Your task to perform on an android device: Go to display settings Image 0: 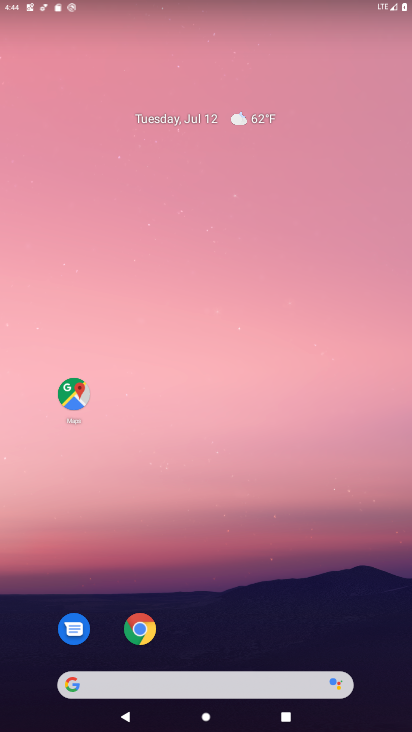
Step 0: drag from (301, 525) to (294, 77)
Your task to perform on an android device: Go to display settings Image 1: 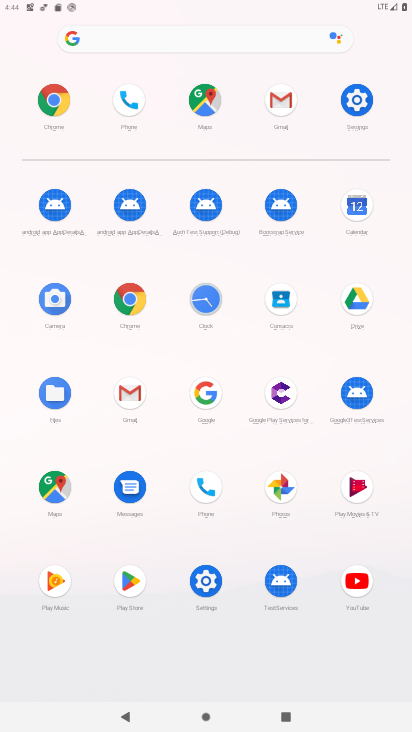
Step 1: click (356, 97)
Your task to perform on an android device: Go to display settings Image 2: 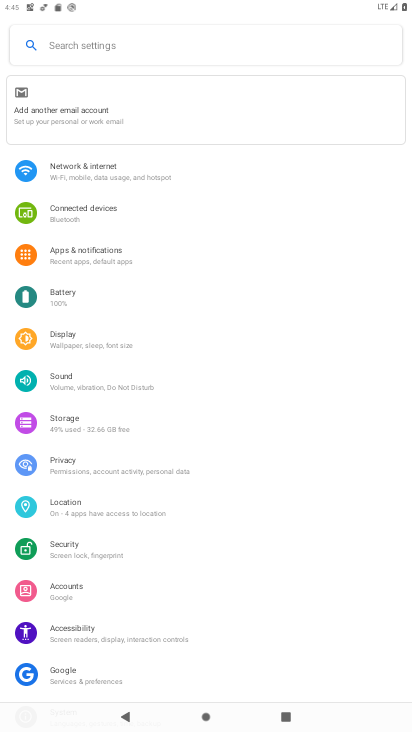
Step 2: click (90, 341)
Your task to perform on an android device: Go to display settings Image 3: 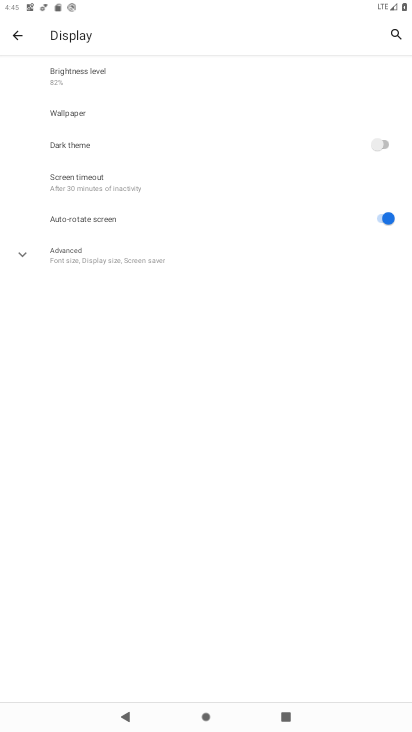
Step 3: task complete